Your task to perform on an android device: Is it going to rain tomorrow? Image 0: 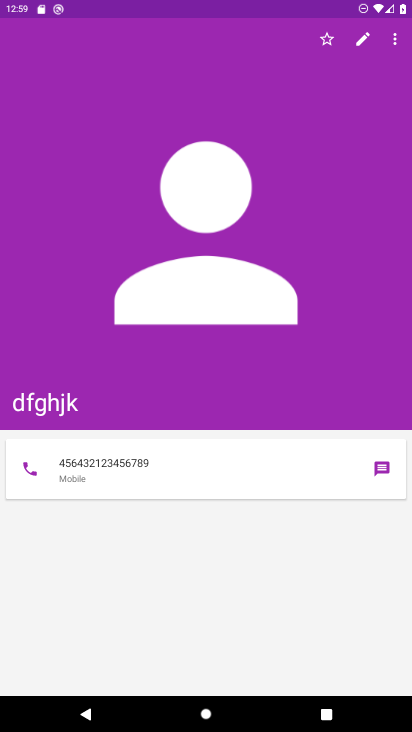
Step 0: press home button
Your task to perform on an android device: Is it going to rain tomorrow? Image 1: 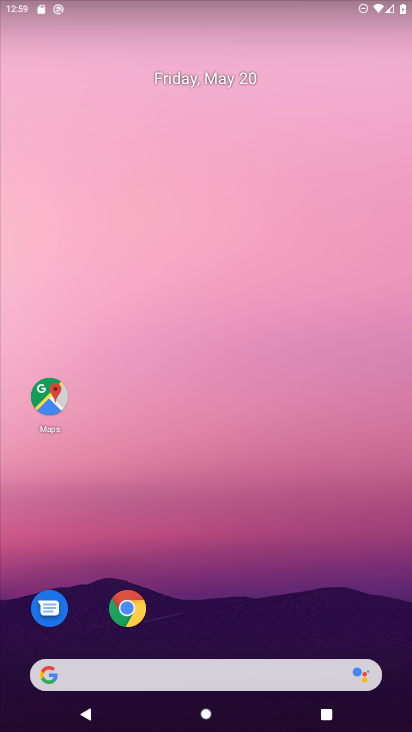
Step 1: click (122, 597)
Your task to perform on an android device: Is it going to rain tomorrow? Image 2: 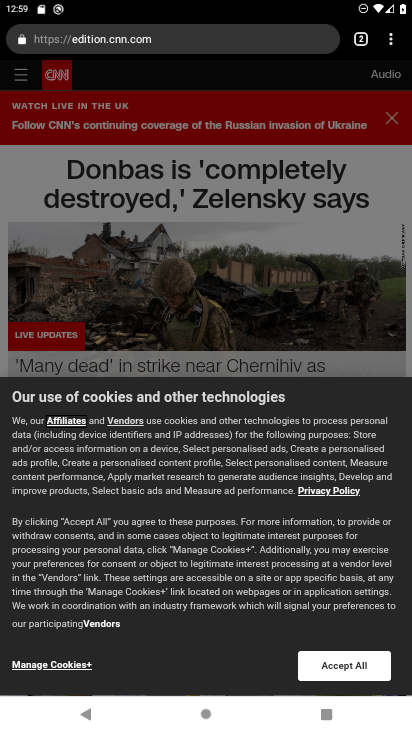
Step 2: click (205, 43)
Your task to perform on an android device: Is it going to rain tomorrow? Image 3: 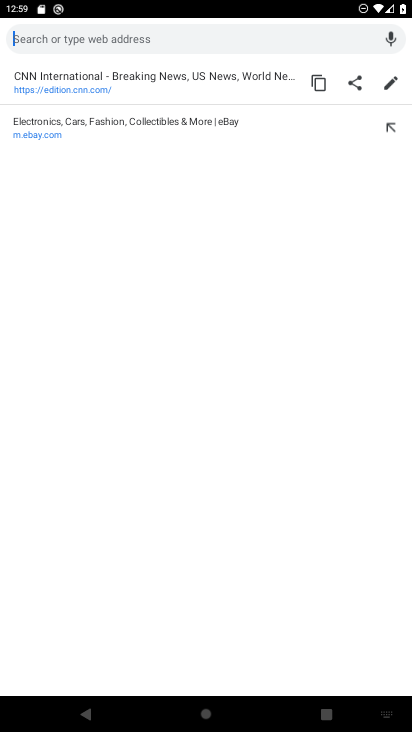
Step 3: click (205, 43)
Your task to perform on an android device: Is it going to rain tomorrow? Image 4: 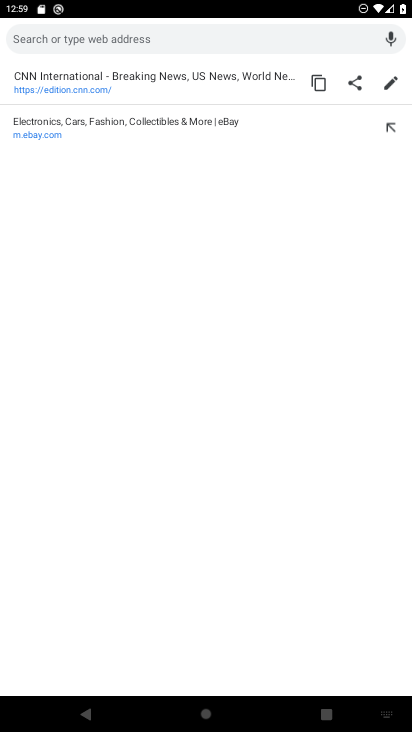
Step 4: type "Is it going to rain tomorrow?"
Your task to perform on an android device: Is it going to rain tomorrow? Image 5: 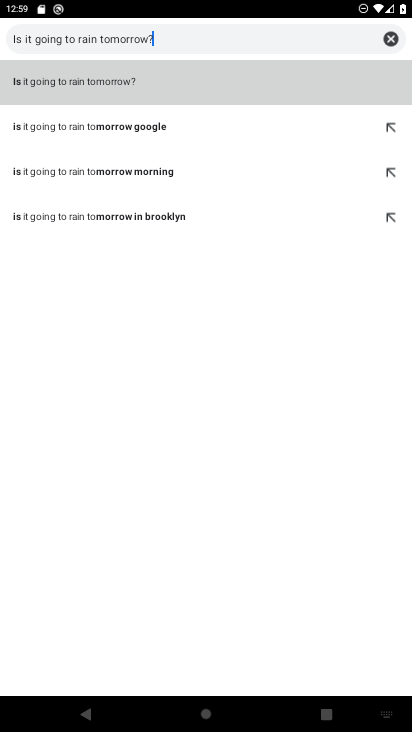
Step 5: click (246, 82)
Your task to perform on an android device: Is it going to rain tomorrow? Image 6: 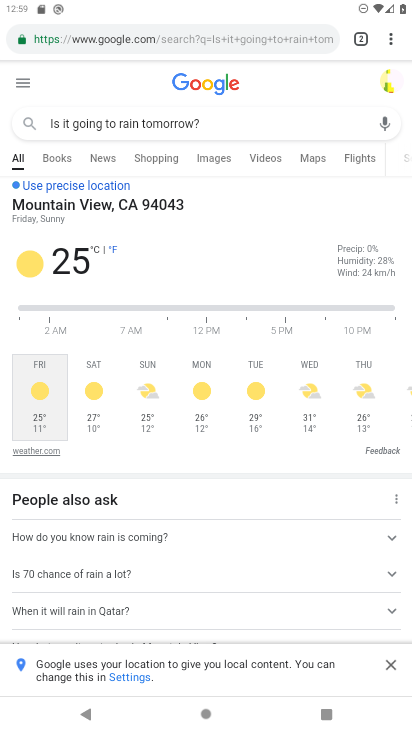
Step 6: task complete